Your task to perform on an android device: Go to Maps Image 0: 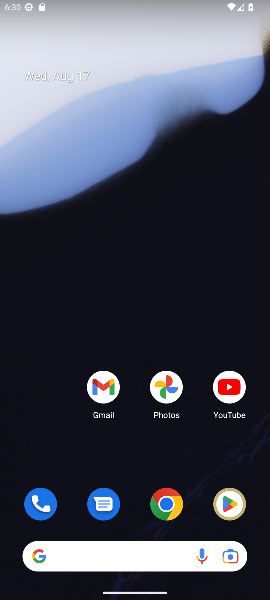
Step 0: drag from (145, 468) to (130, 60)
Your task to perform on an android device: Go to Maps Image 1: 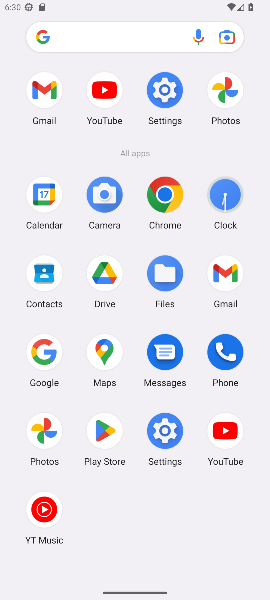
Step 1: click (103, 354)
Your task to perform on an android device: Go to Maps Image 2: 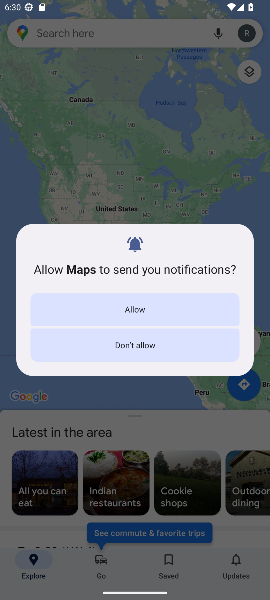
Step 2: task complete